Your task to perform on an android device: move an email to a new category in the gmail app Image 0: 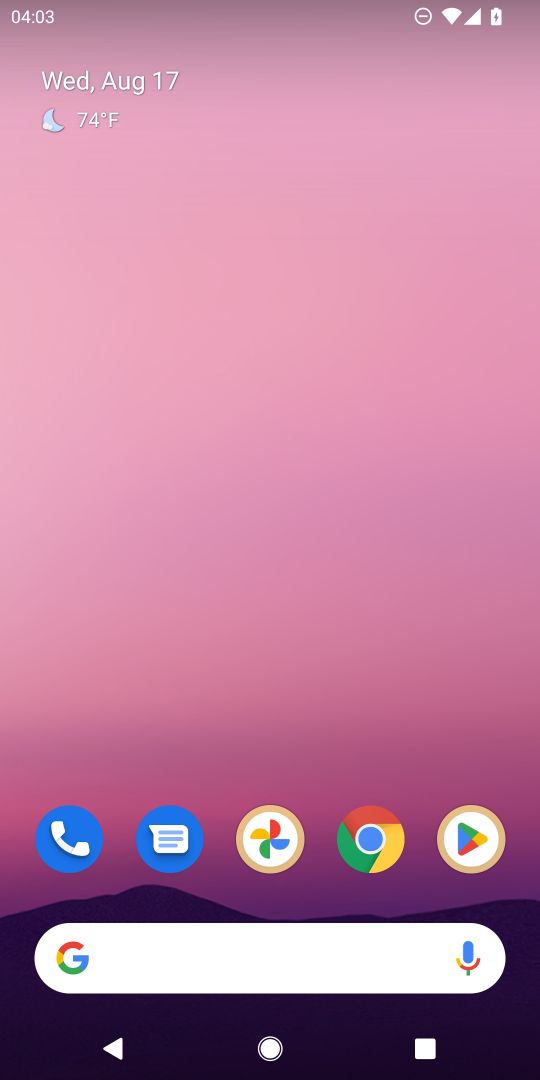
Step 0: drag from (290, 620) to (220, 141)
Your task to perform on an android device: move an email to a new category in the gmail app Image 1: 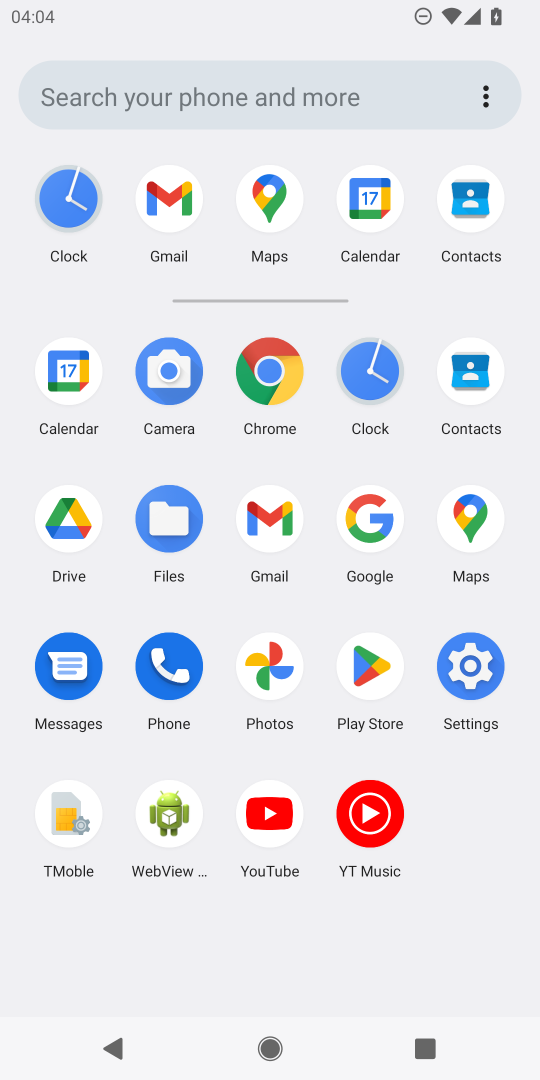
Step 1: click (276, 519)
Your task to perform on an android device: move an email to a new category in the gmail app Image 2: 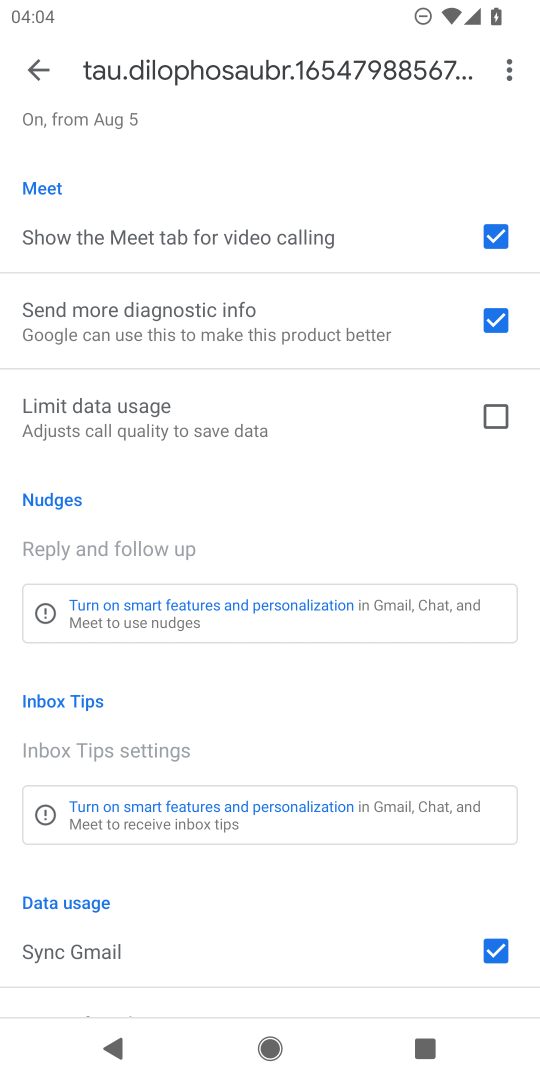
Step 2: click (40, 61)
Your task to perform on an android device: move an email to a new category in the gmail app Image 3: 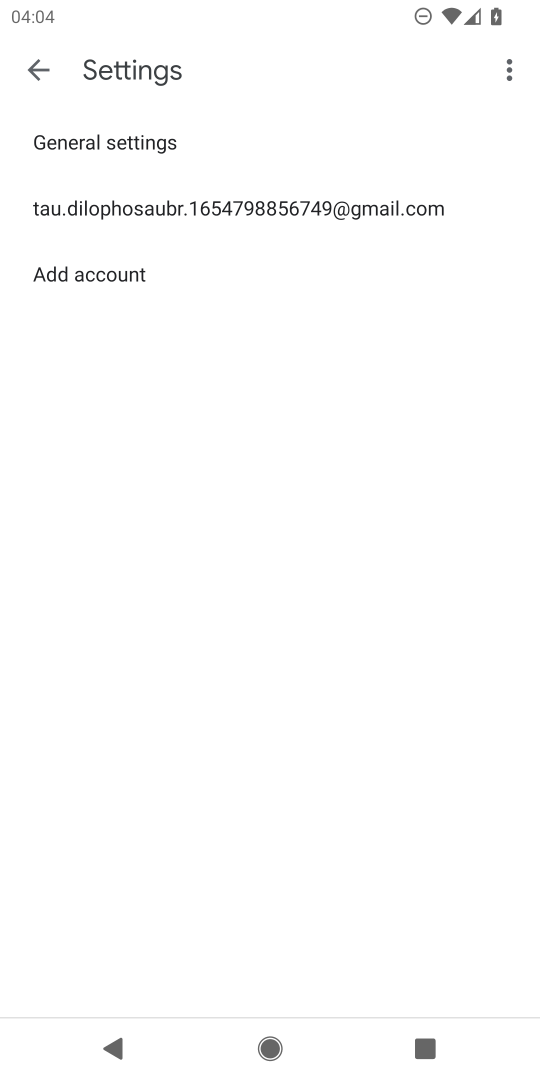
Step 3: click (36, 60)
Your task to perform on an android device: move an email to a new category in the gmail app Image 4: 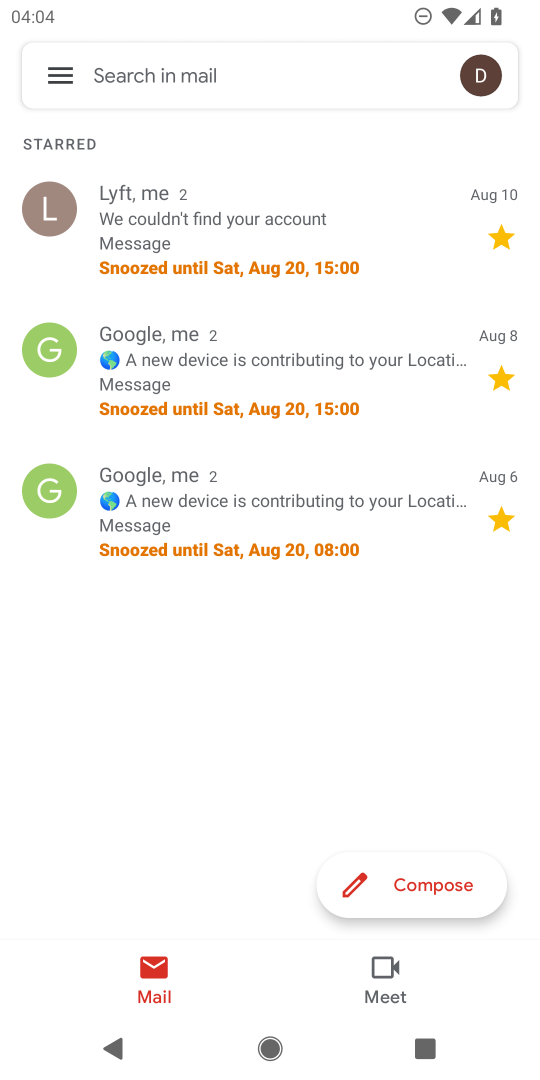
Step 4: click (150, 246)
Your task to perform on an android device: move an email to a new category in the gmail app Image 5: 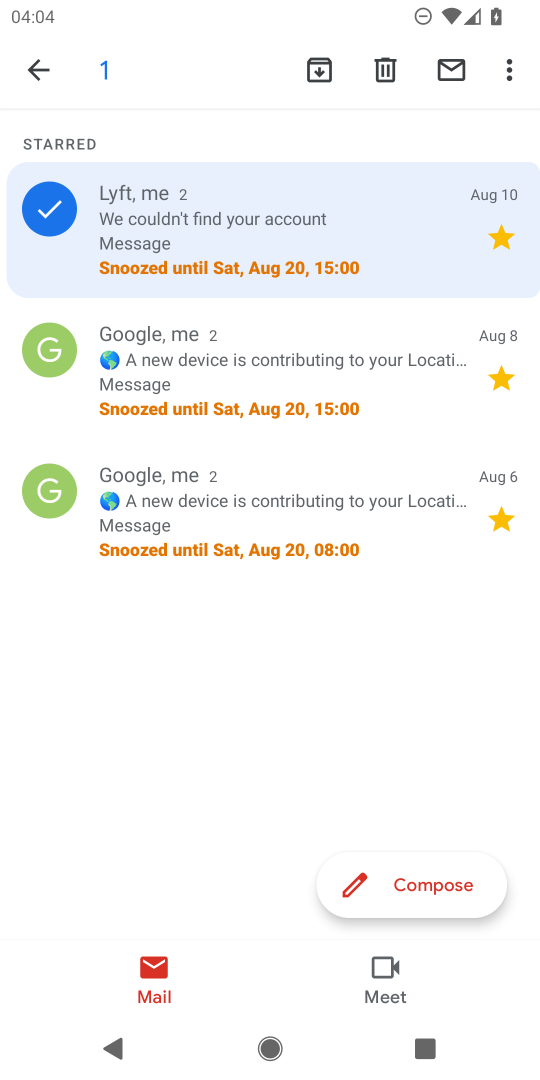
Step 5: click (508, 68)
Your task to perform on an android device: move an email to a new category in the gmail app Image 6: 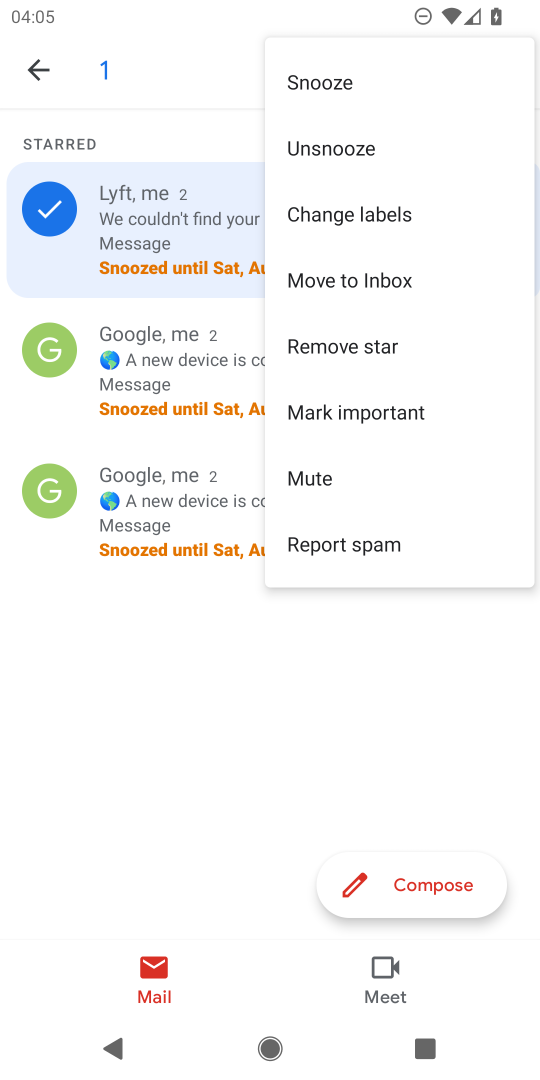
Step 6: click (348, 283)
Your task to perform on an android device: move an email to a new category in the gmail app Image 7: 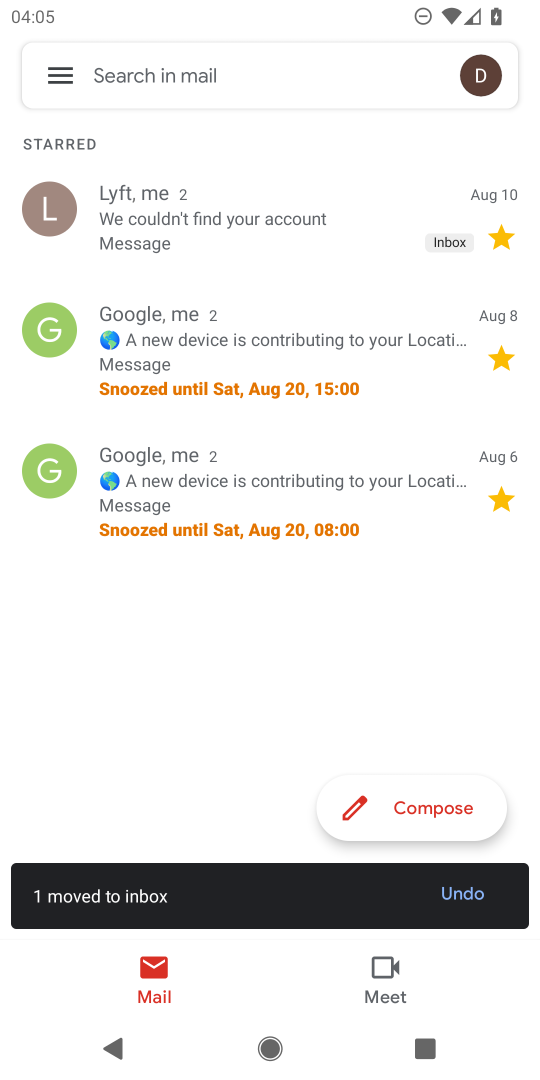
Step 7: task complete